Your task to perform on an android device: change notification settings in the gmail app Image 0: 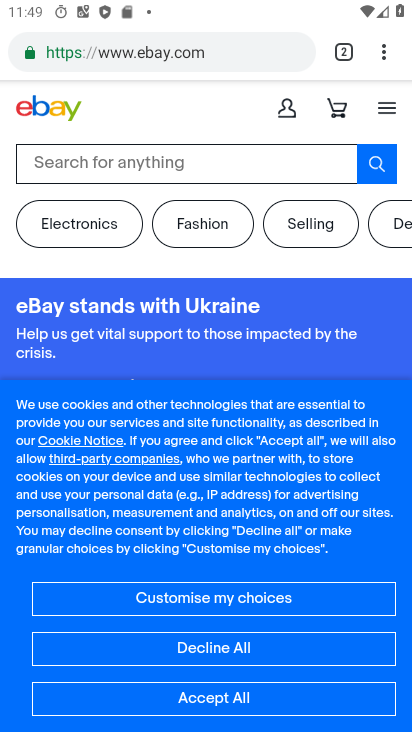
Step 0: press home button
Your task to perform on an android device: change notification settings in the gmail app Image 1: 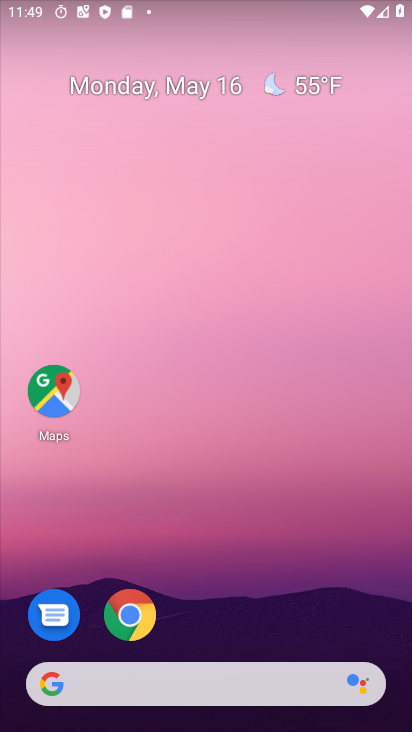
Step 1: drag from (259, 540) to (313, 99)
Your task to perform on an android device: change notification settings in the gmail app Image 2: 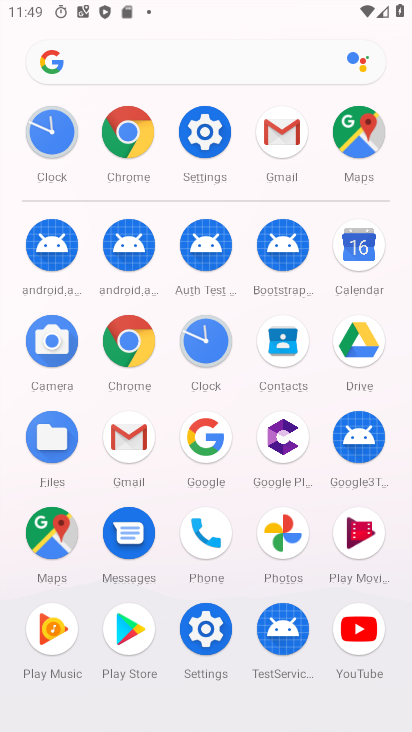
Step 2: click (274, 125)
Your task to perform on an android device: change notification settings in the gmail app Image 3: 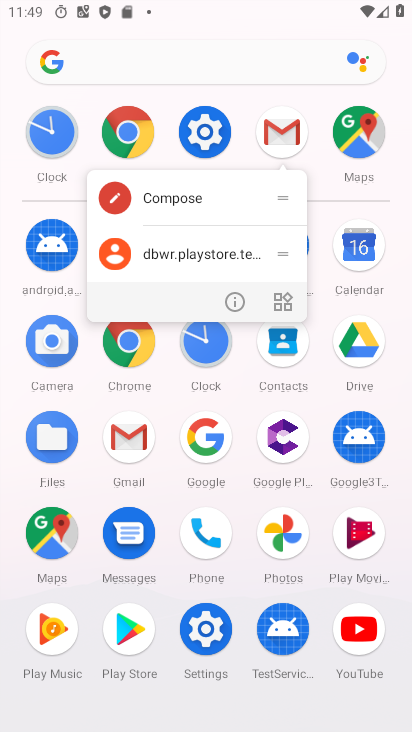
Step 3: click (240, 301)
Your task to perform on an android device: change notification settings in the gmail app Image 4: 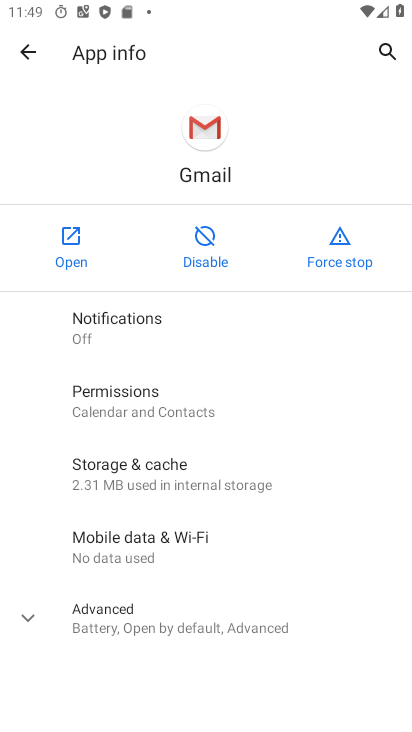
Step 4: click (163, 318)
Your task to perform on an android device: change notification settings in the gmail app Image 5: 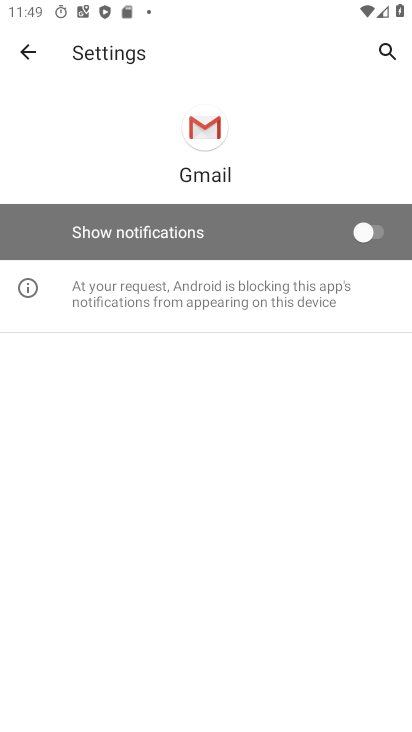
Step 5: click (379, 229)
Your task to perform on an android device: change notification settings in the gmail app Image 6: 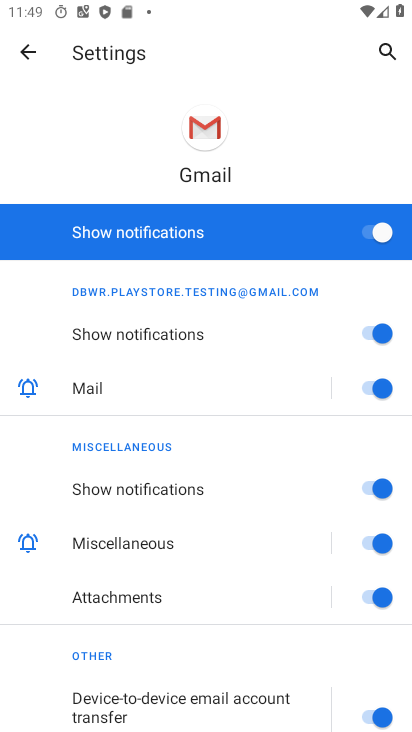
Step 6: task complete